Your task to perform on an android device: What's the weather going to be this weekend? Image 0: 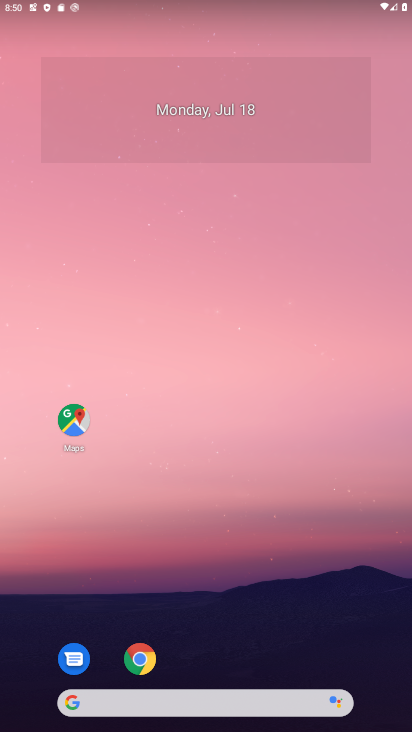
Step 0: drag from (336, 549) to (349, 10)
Your task to perform on an android device: What's the weather going to be this weekend? Image 1: 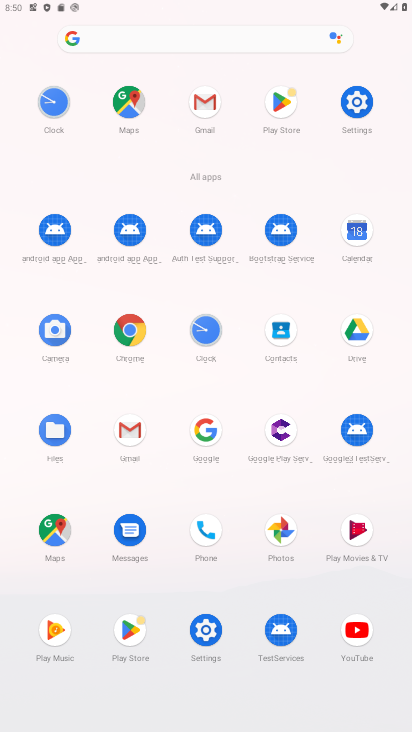
Step 1: click (202, 433)
Your task to perform on an android device: What's the weather going to be this weekend? Image 2: 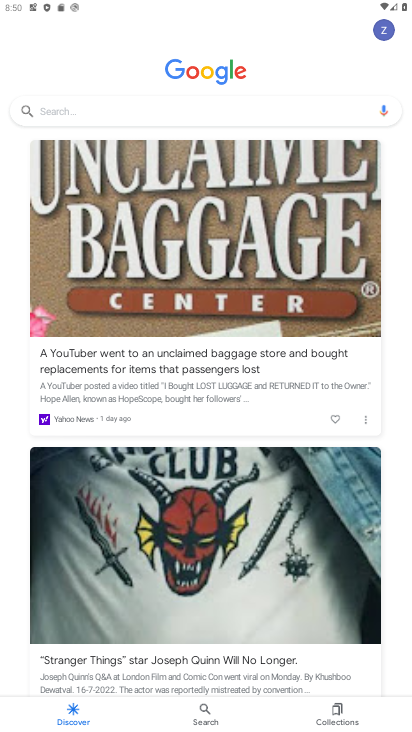
Step 2: click (225, 102)
Your task to perform on an android device: What's the weather going to be this weekend? Image 3: 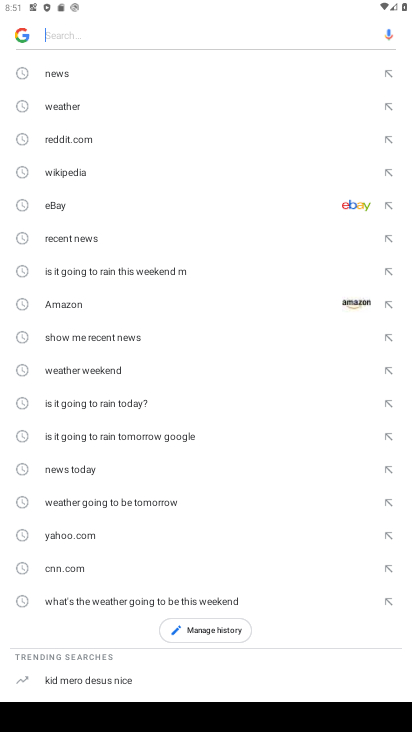
Step 3: drag from (176, 713) to (55, 107)
Your task to perform on an android device: What's the weather going to be this weekend? Image 4: 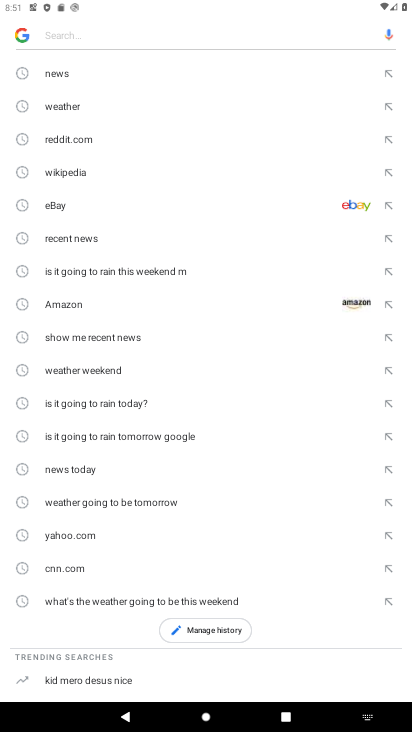
Step 4: click (55, 108)
Your task to perform on an android device: What's the weather going to be this weekend? Image 5: 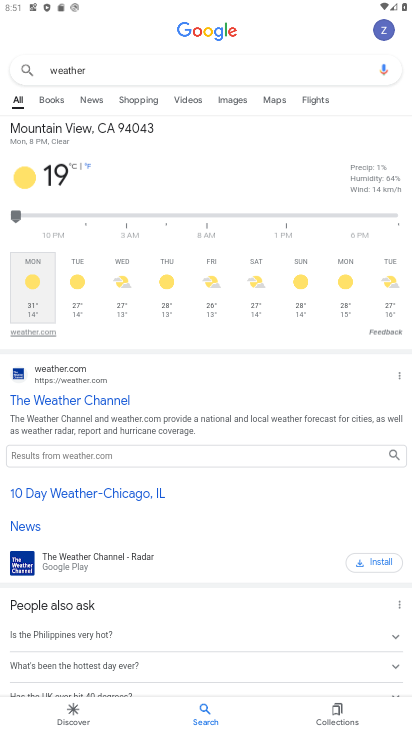
Step 5: task complete